Your task to perform on an android device: refresh tabs in the chrome app Image 0: 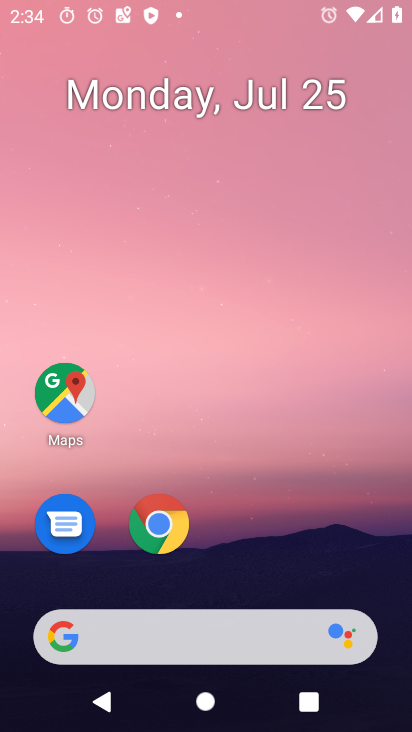
Step 0: press home button
Your task to perform on an android device: refresh tabs in the chrome app Image 1: 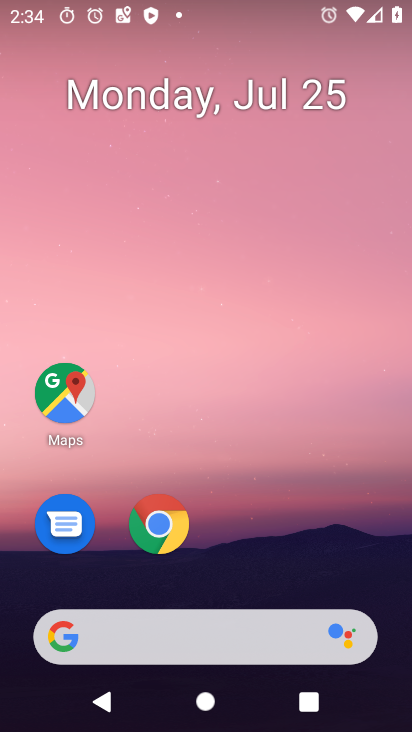
Step 1: drag from (251, 575) to (261, 140)
Your task to perform on an android device: refresh tabs in the chrome app Image 2: 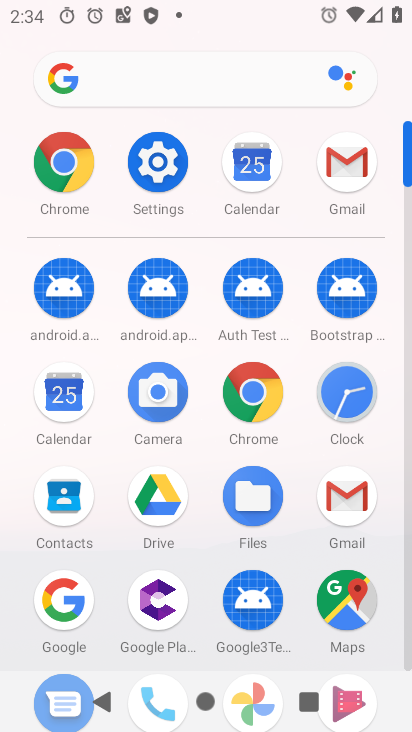
Step 2: click (67, 163)
Your task to perform on an android device: refresh tabs in the chrome app Image 3: 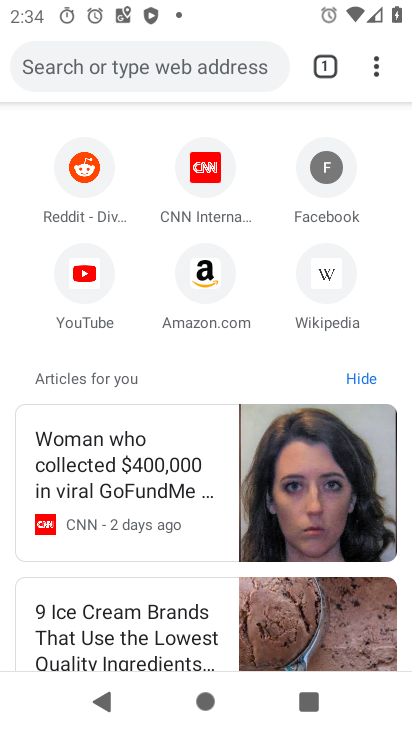
Step 3: click (377, 70)
Your task to perform on an android device: refresh tabs in the chrome app Image 4: 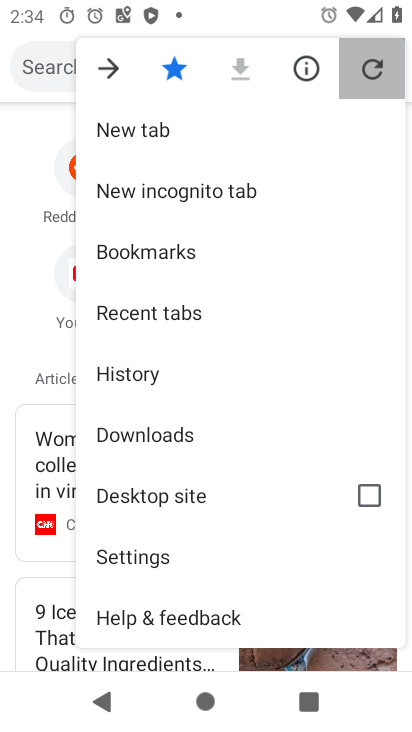
Step 4: click (376, 72)
Your task to perform on an android device: refresh tabs in the chrome app Image 5: 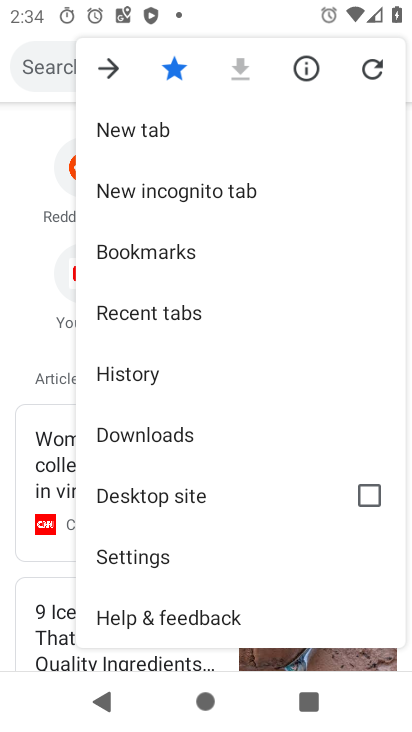
Step 5: task complete